Your task to perform on an android device: toggle translation in the chrome app Image 0: 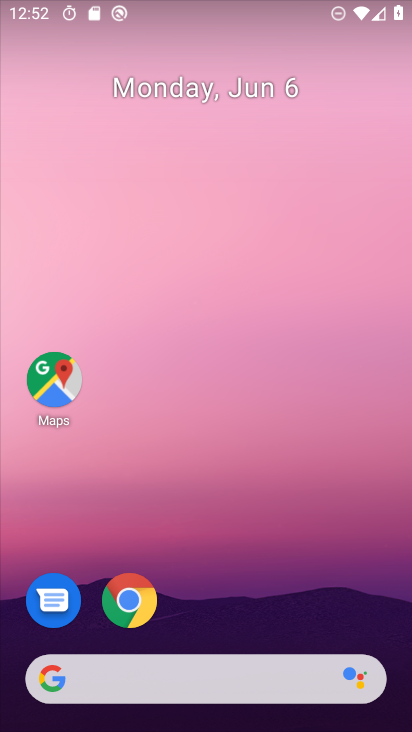
Step 0: click (133, 593)
Your task to perform on an android device: toggle translation in the chrome app Image 1: 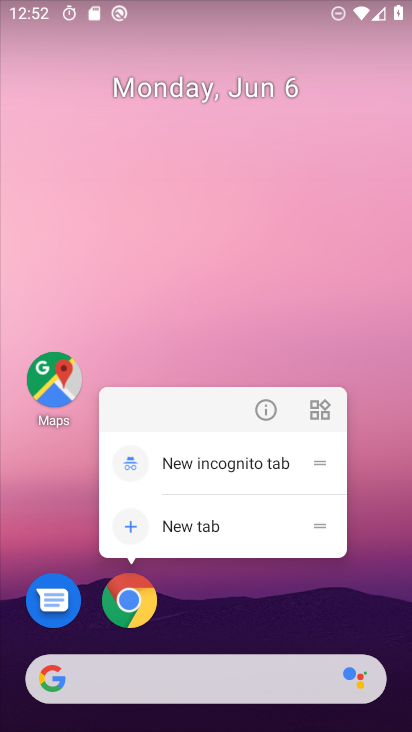
Step 1: click (123, 621)
Your task to perform on an android device: toggle translation in the chrome app Image 2: 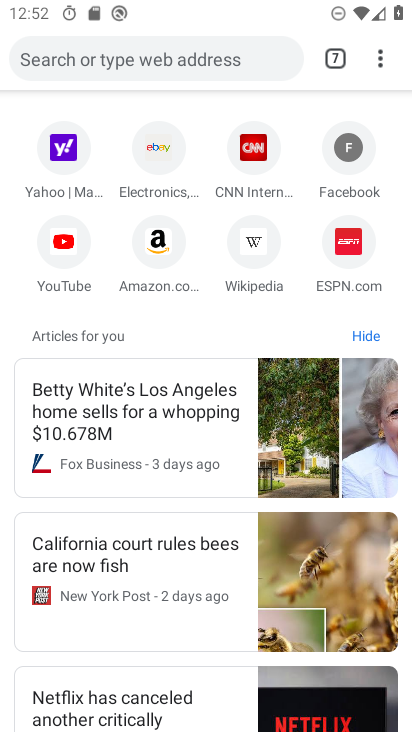
Step 2: drag from (385, 62) to (202, 477)
Your task to perform on an android device: toggle translation in the chrome app Image 3: 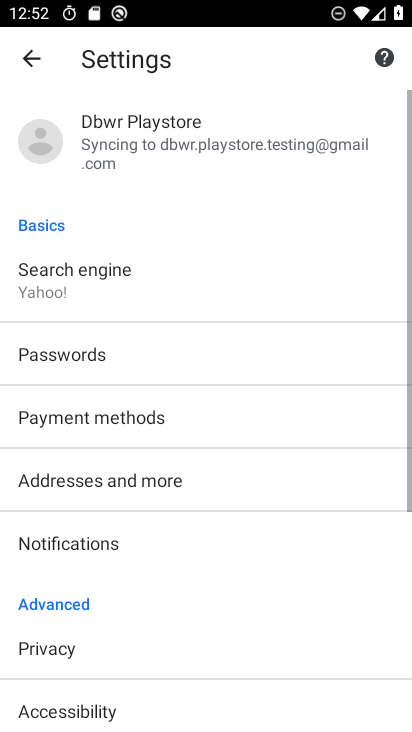
Step 3: drag from (225, 619) to (238, 316)
Your task to perform on an android device: toggle translation in the chrome app Image 4: 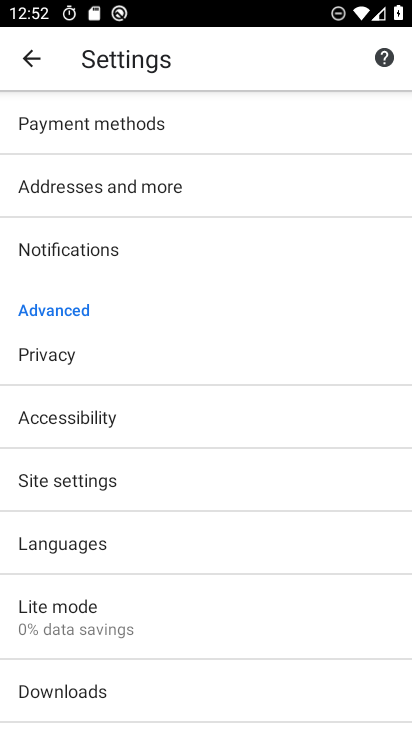
Step 4: click (162, 530)
Your task to perform on an android device: toggle translation in the chrome app Image 5: 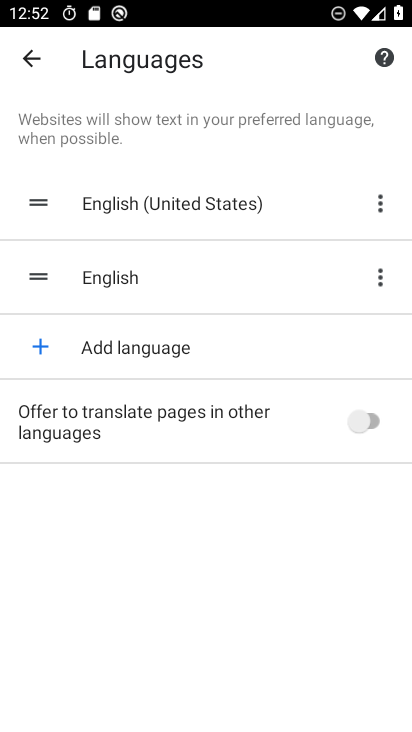
Step 5: click (361, 417)
Your task to perform on an android device: toggle translation in the chrome app Image 6: 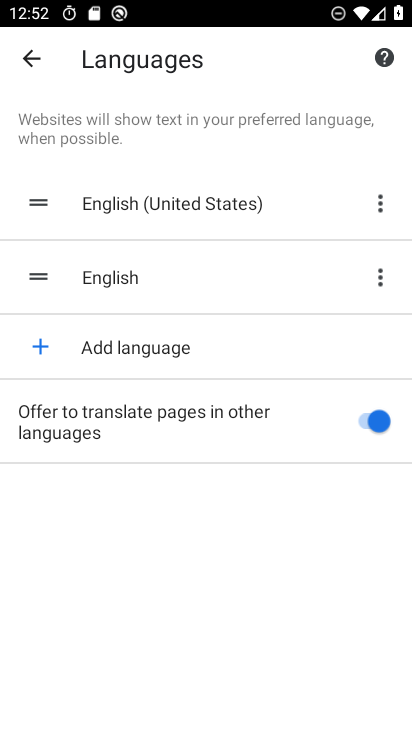
Step 6: task complete